Your task to perform on an android device: install app "Google Play services" Image 0: 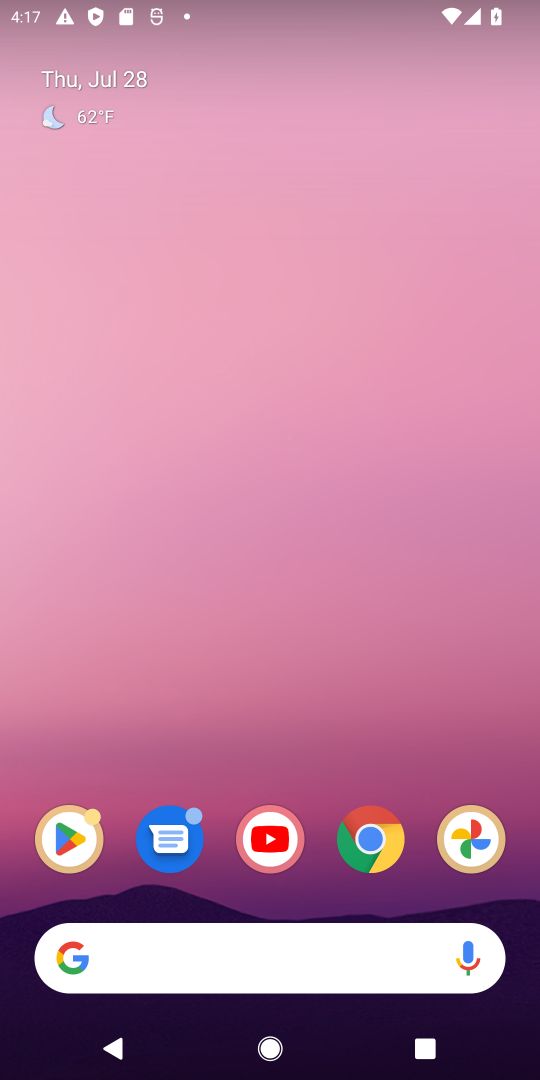
Step 0: drag from (369, 711) to (8, 842)
Your task to perform on an android device: install app "Google Play services" Image 1: 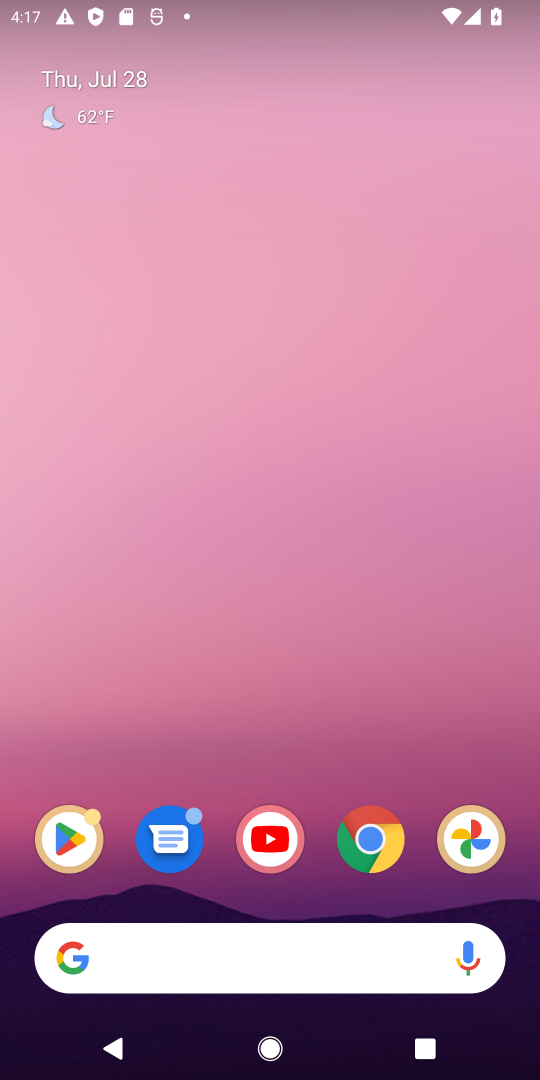
Step 1: click (355, 703)
Your task to perform on an android device: install app "Google Play services" Image 2: 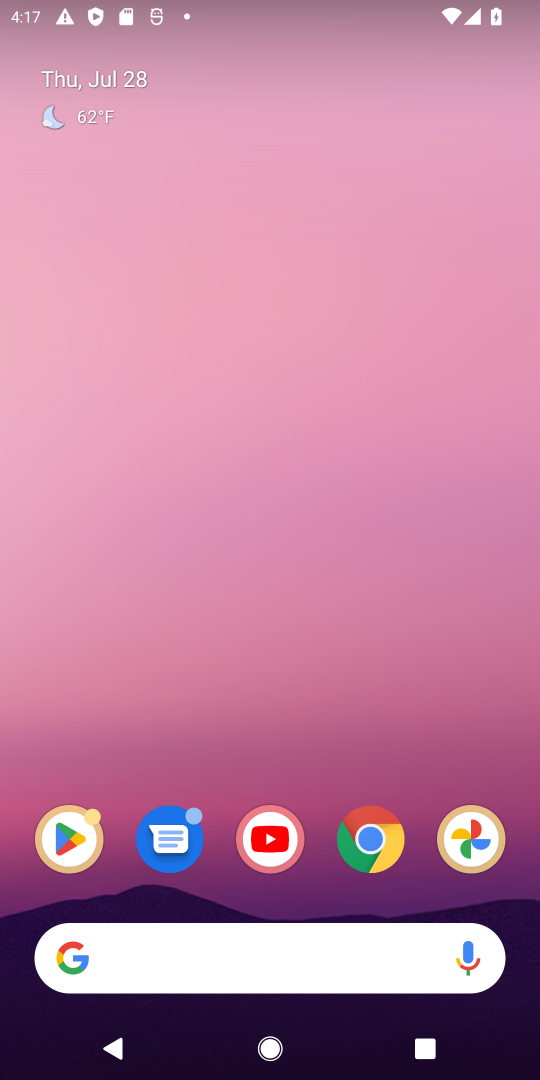
Step 2: drag from (355, 685) to (292, 65)
Your task to perform on an android device: install app "Google Play services" Image 3: 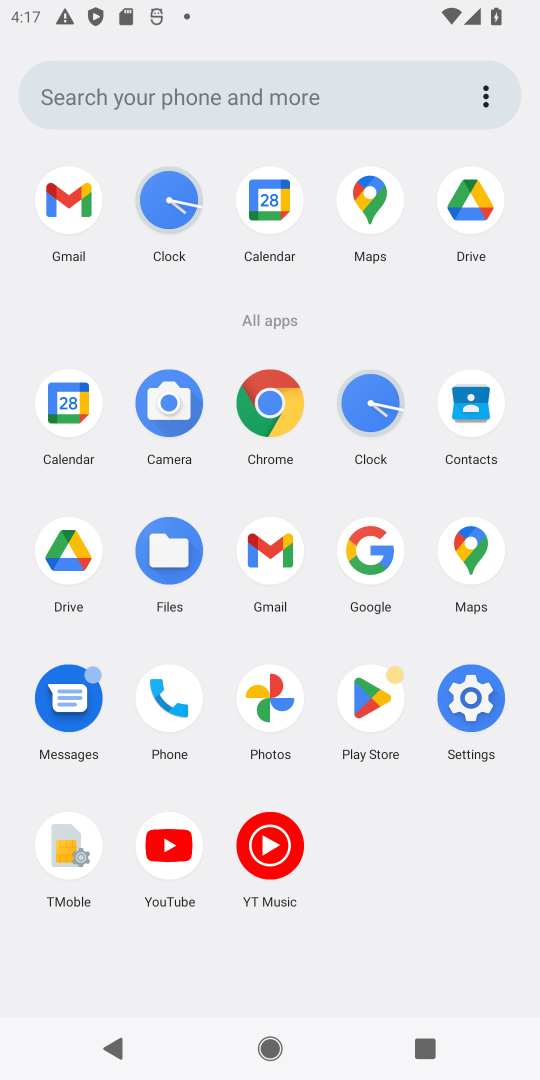
Step 3: click (382, 686)
Your task to perform on an android device: install app "Google Play services" Image 4: 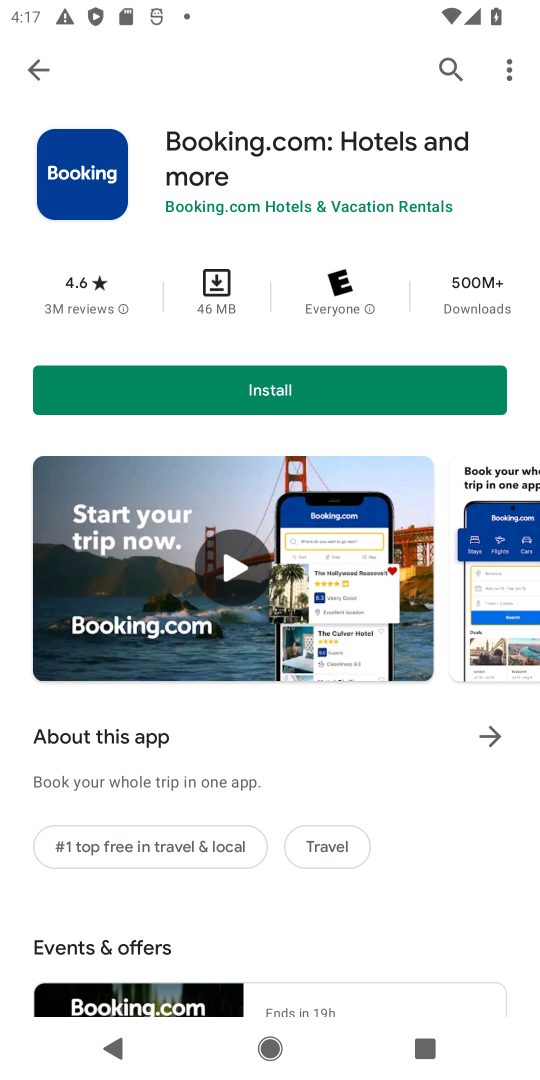
Step 4: press back button
Your task to perform on an android device: install app "Google Play services" Image 5: 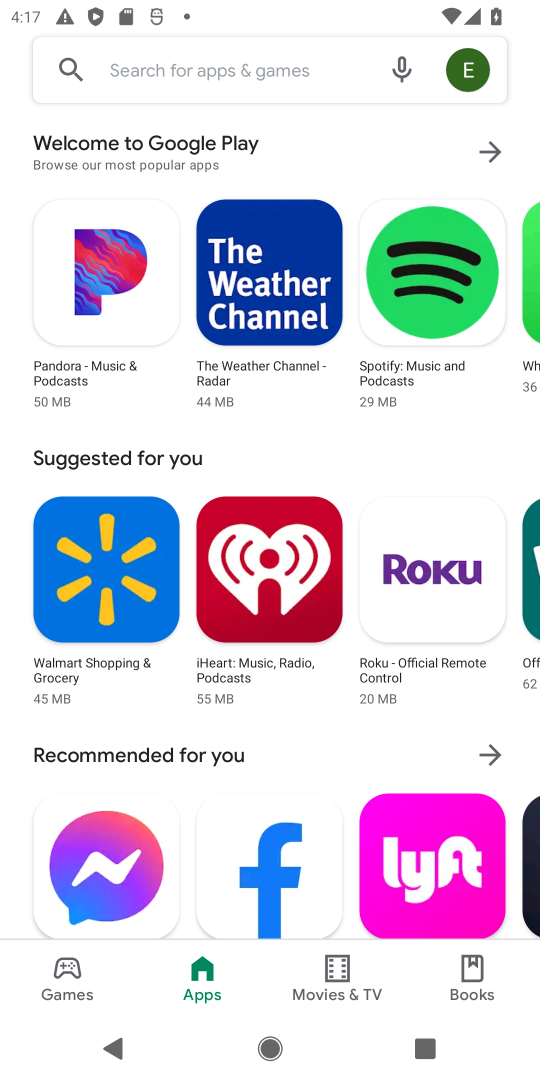
Step 5: click (195, 66)
Your task to perform on an android device: install app "Google Play services" Image 6: 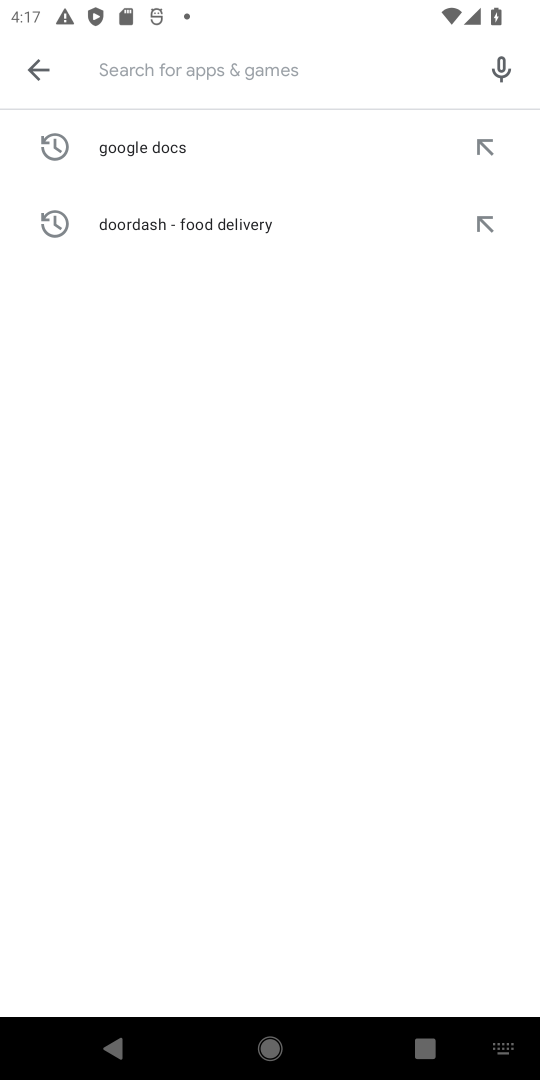
Step 6: type "Google Play services"
Your task to perform on an android device: install app "Google Play services" Image 7: 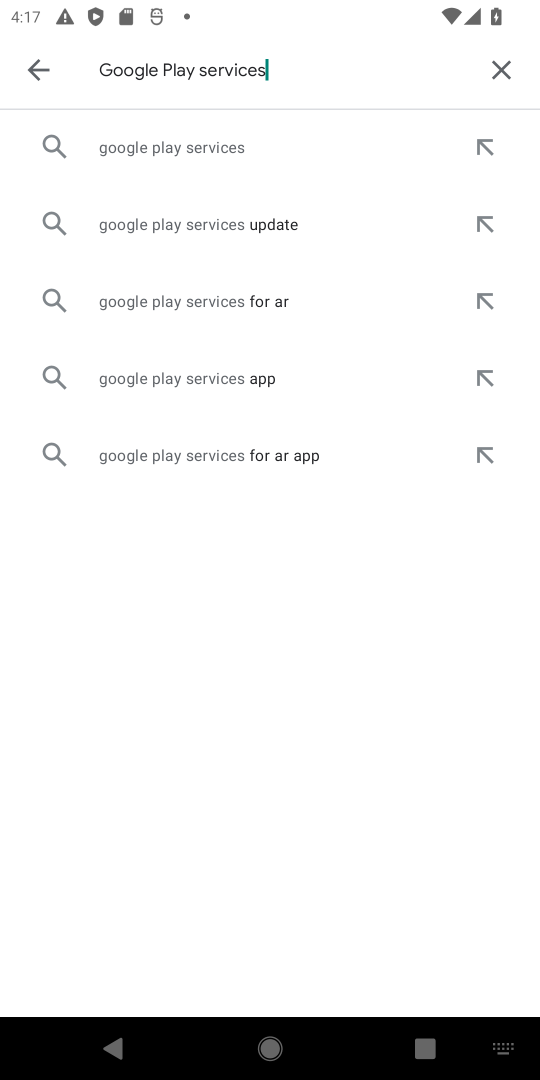
Step 7: click (160, 153)
Your task to perform on an android device: install app "Google Play services" Image 8: 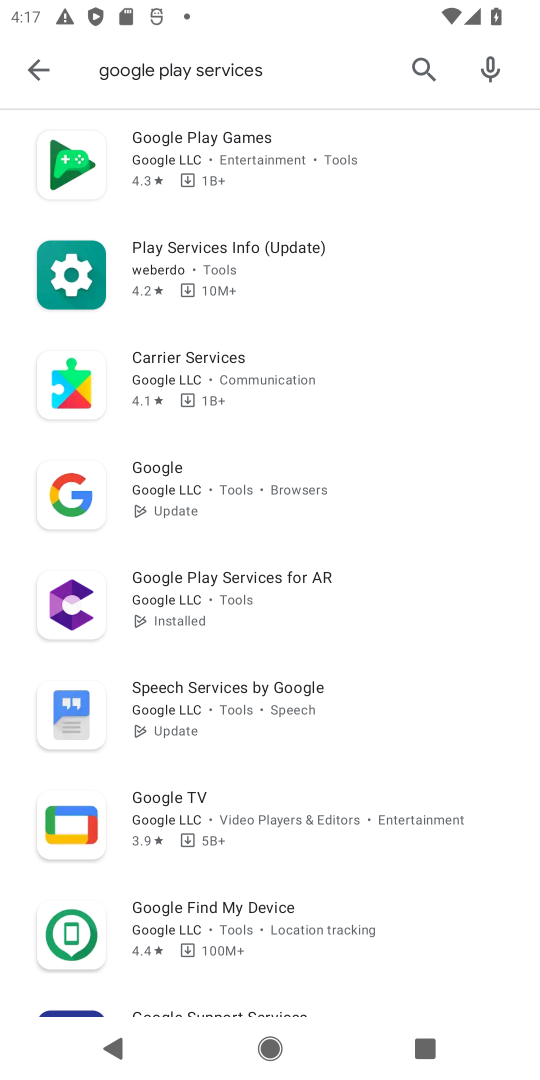
Step 8: click (276, 162)
Your task to perform on an android device: install app "Google Play services" Image 9: 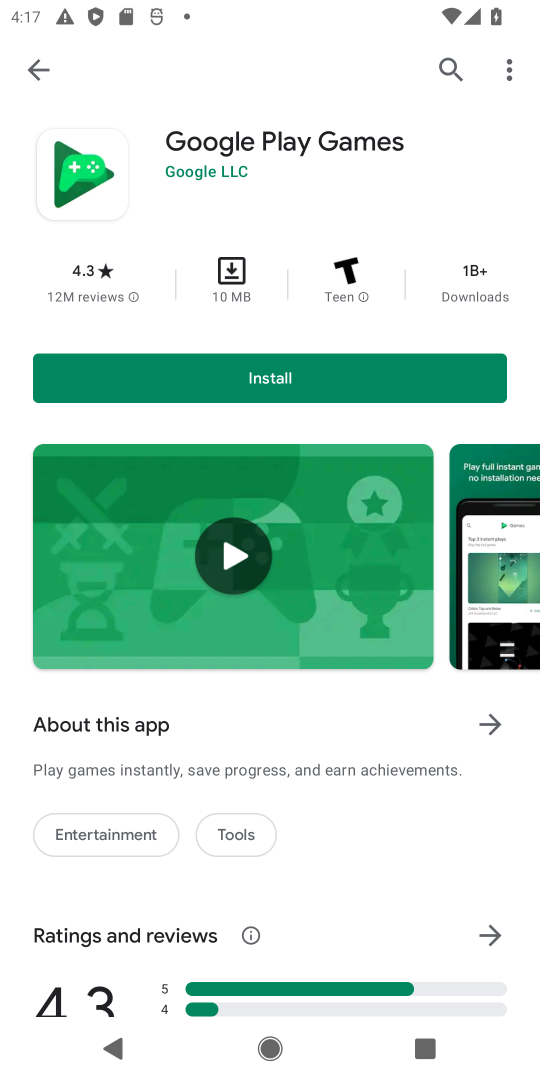
Step 9: task complete